Your task to perform on an android device: Go to calendar. Show me events next week Image 0: 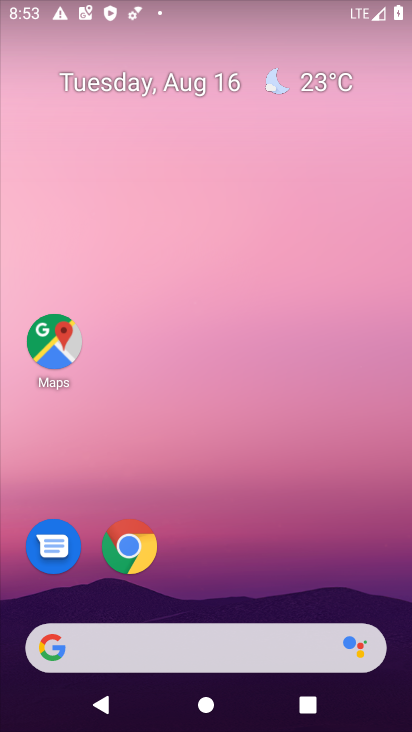
Step 0: drag from (252, 553) to (214, 48)
Your task to perform on an android device: Go to calendar. Show me events next week Image 1: 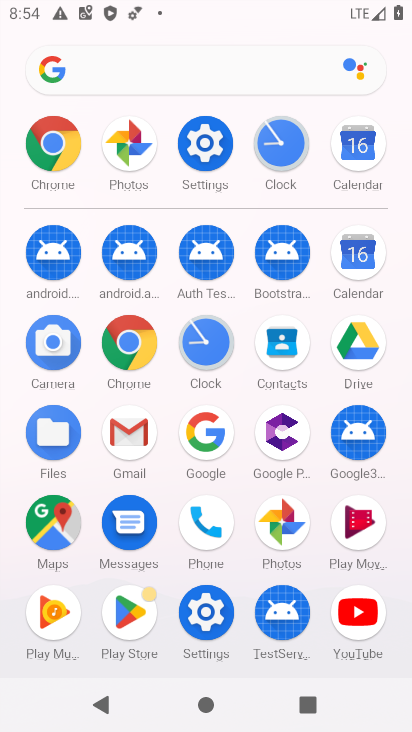
Step 1: click (355, 148)
Your task to perform on an android device: Go to calendar. Show me events next week Image 2: 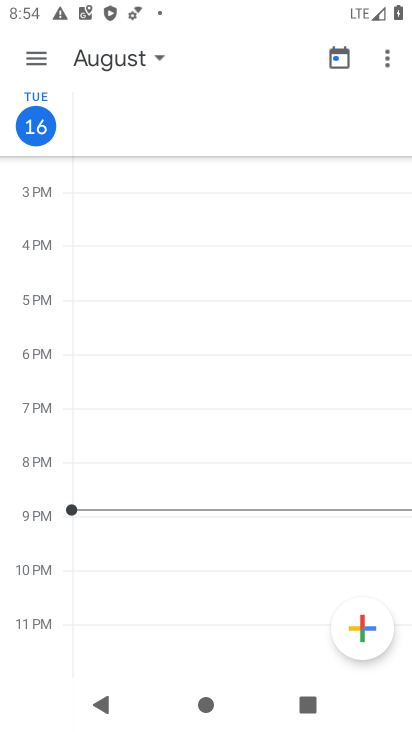
Step 2: click (37, 54)
Your task to perform on an android device: Go to calendar. Show me events next week Image 3: 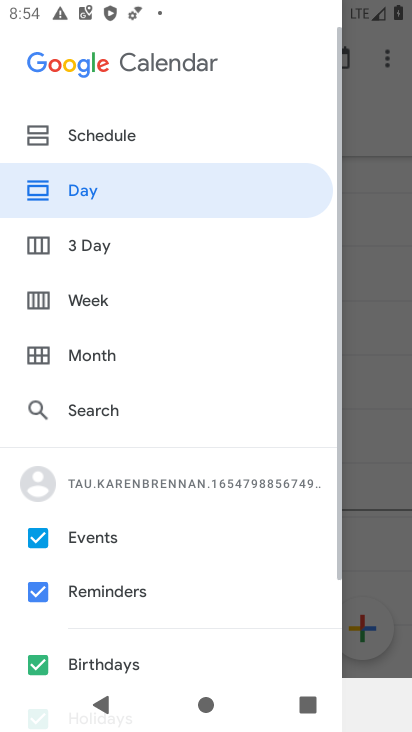
Step 3: click (35, 298)
Your task to perform on an android device: Go to calendar. Show me events next week Image 4: 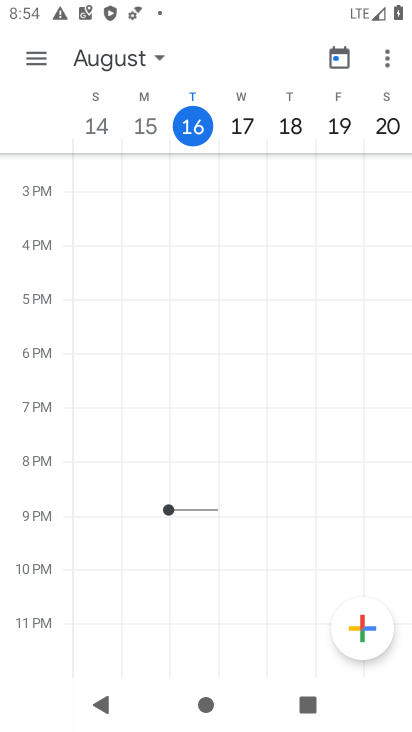
Step 4: task complete